Your task to perform on an android device: Open Google Image 0: 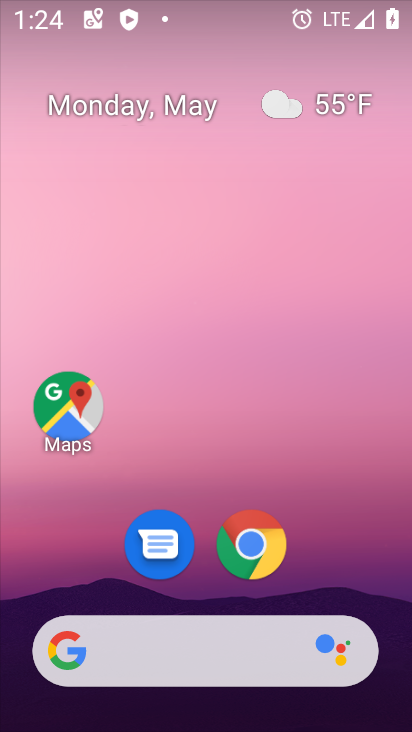
Step 0: click (252, 543)
Your task to perform on an android device: Open Google Image 1: 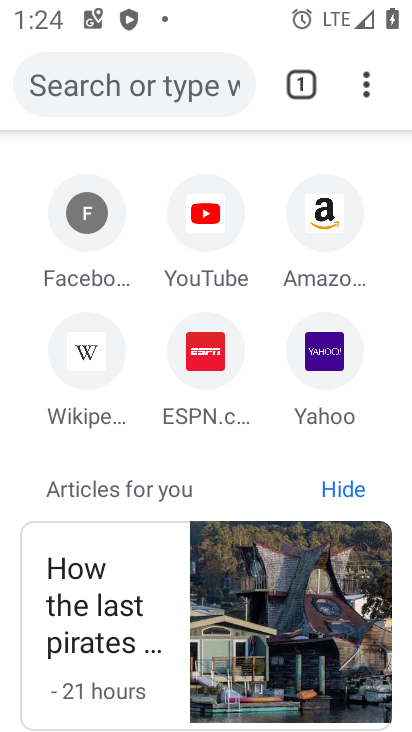
Step 1: task complete